Your task to perform on an android device: turn on translation in the chrome app Image 0: 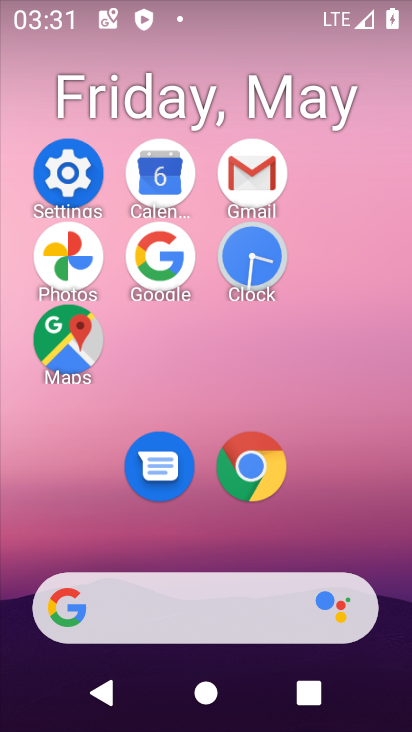
Step 0: click (258, 444)
Your task to perform on an android device: turn on translation in the chrome app Image 1: 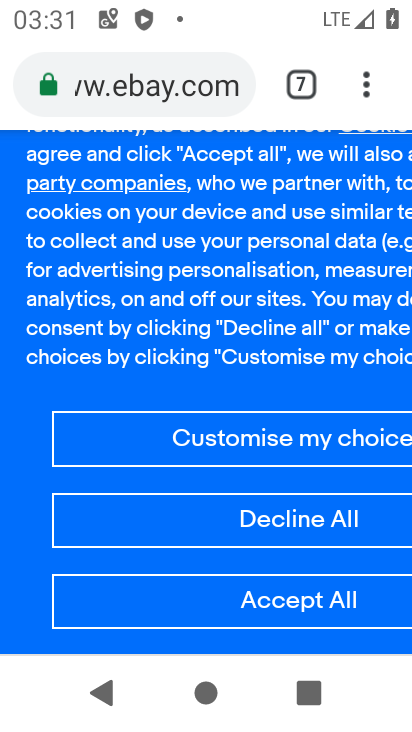
Step 1: click (356, 79)
Your task to perform on an android device: turn on translation in the chrome app Image 2: 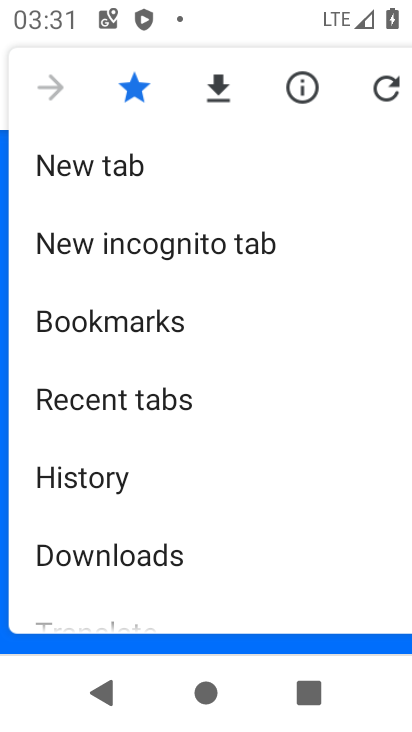
Step 2: drag from (275, 480) to (253, 27)
Your task to perform on an android device: turn on translation in the chrome app Image 3: 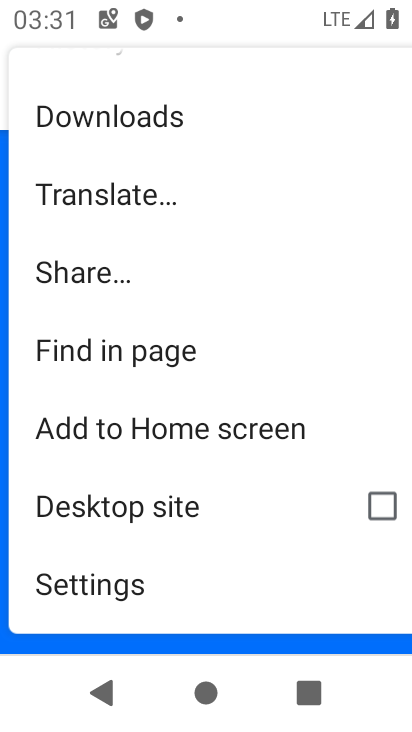
Step 3: click (168, 579)
Your task to perform on an android device: turn on translation in the chrome app Image 4: 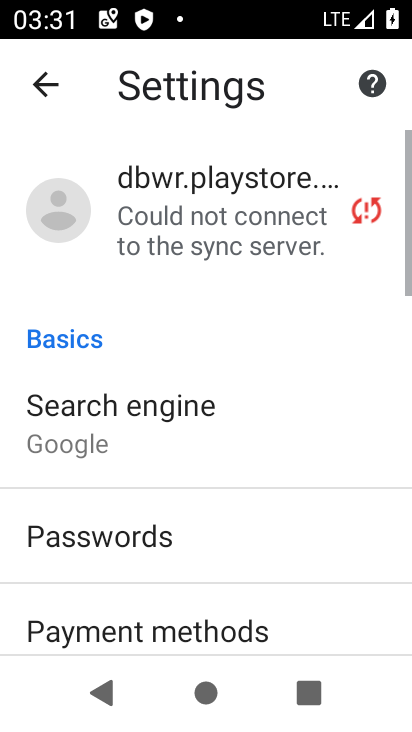
Step 4: drag from (168, 579) to (213, 138)
Your task to perform on an android device: turn on translation in the chrome app Image 5: 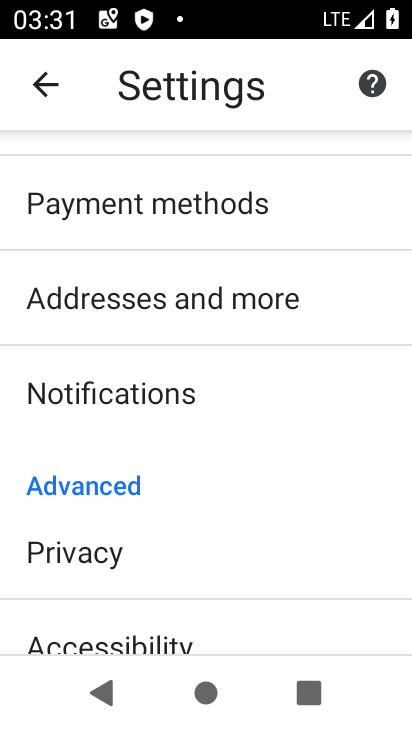
Step 5: drag from (219, 532) to (243, 157)
Your task to perform on an android device: turn on translation in the chrome app Image 6: 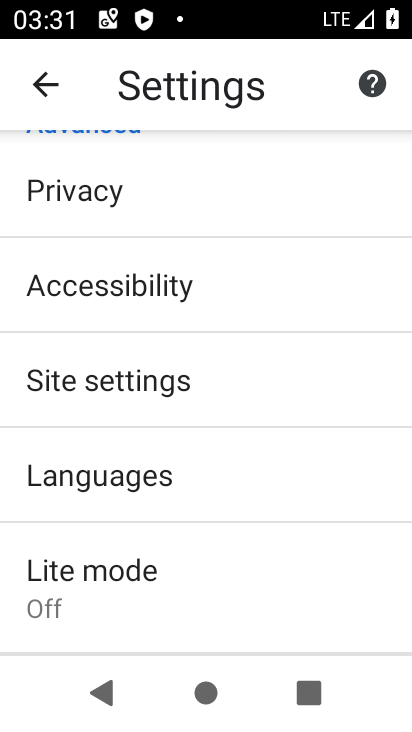
Step 6: click (232, 499)
Your task to perform on an android device: turn on translation in the chrome app Image 7: 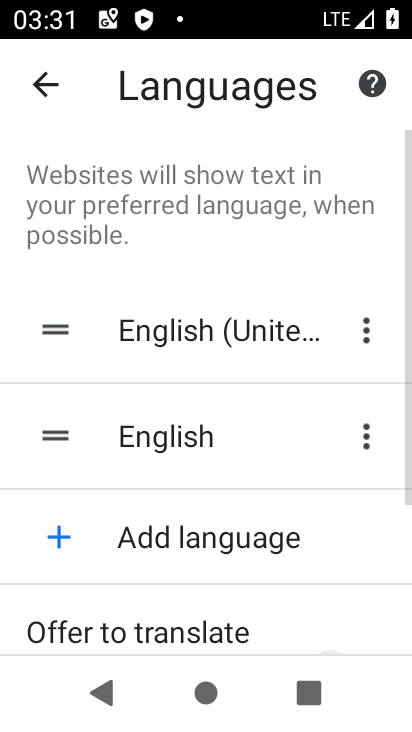
Step 7: drag from (276, 628) to (275, 228)
Your task to perform on an android device: turn on translation in the chrome app Image 8: 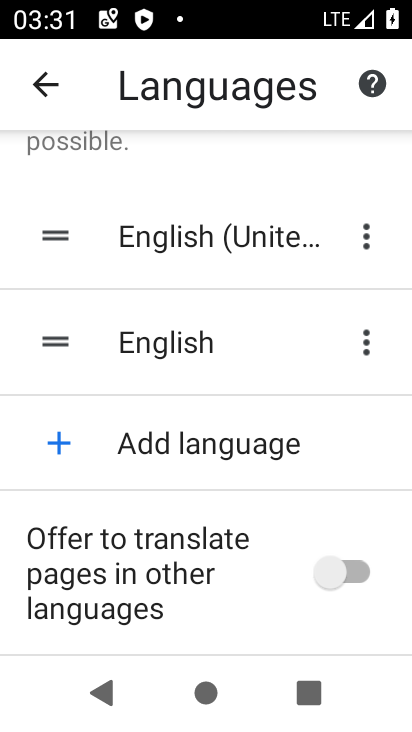
Step 8: click (343, 580)
Your task to perform on an android device: turn on translation in the chrome app Image 9: 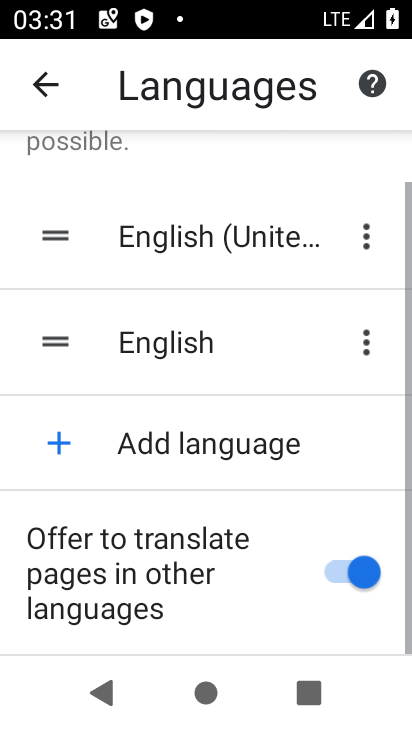
Step 9: task complete